Your task to perform on an android device: install app "Pluto TV - Live TV and Movies" Image 0: 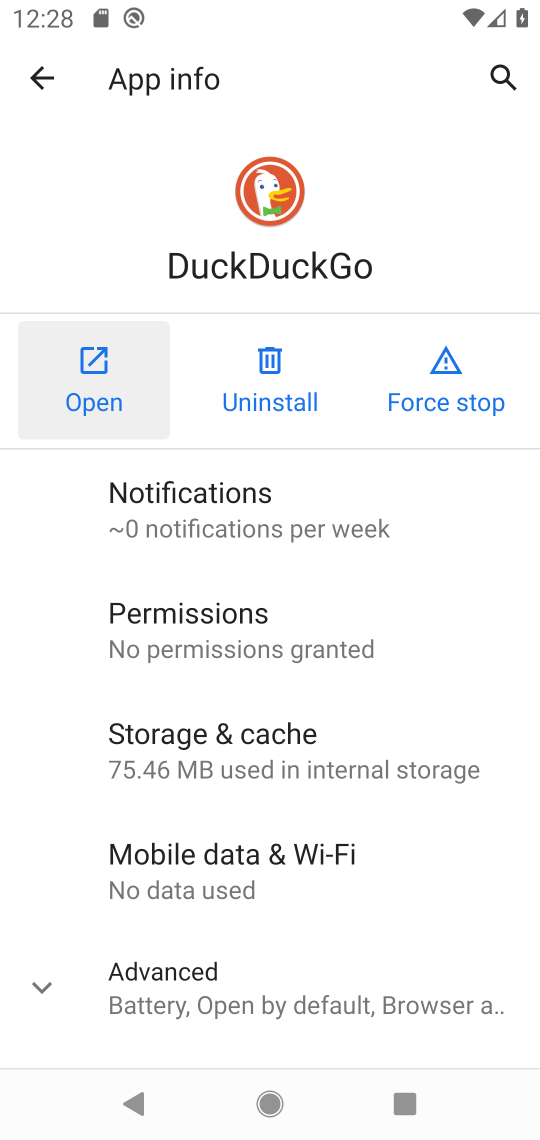
Step 0: press home button
Your task to perform on an android device: install app "Pluto TV - Live TV and Movies" Image 1: 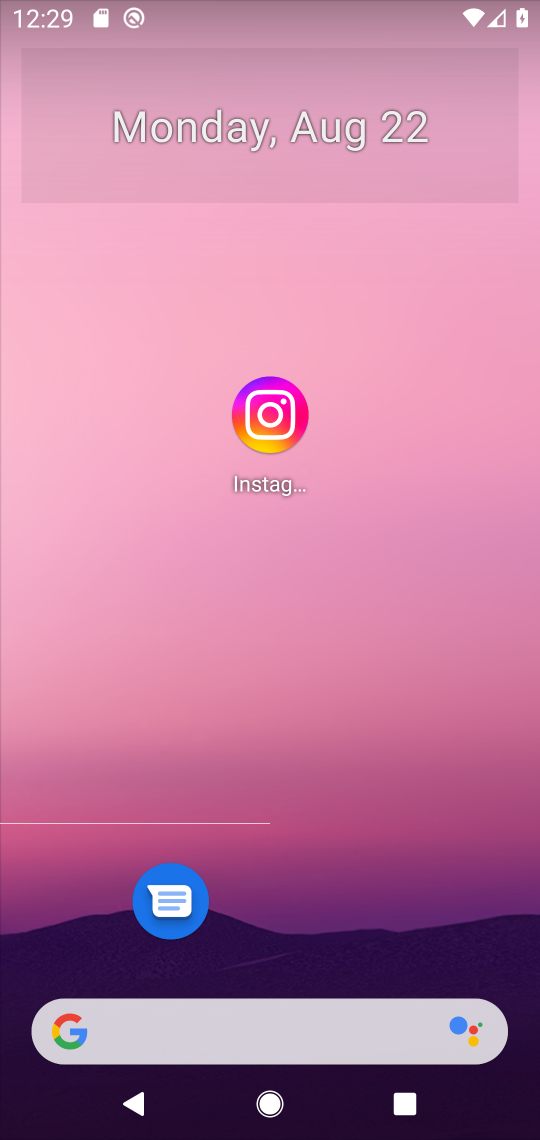
Step 1: drag from (378, 951) to (144, 4)
Your task to perform on an android device: install app "Pluto TV - Live TV and Movies" Image 2: 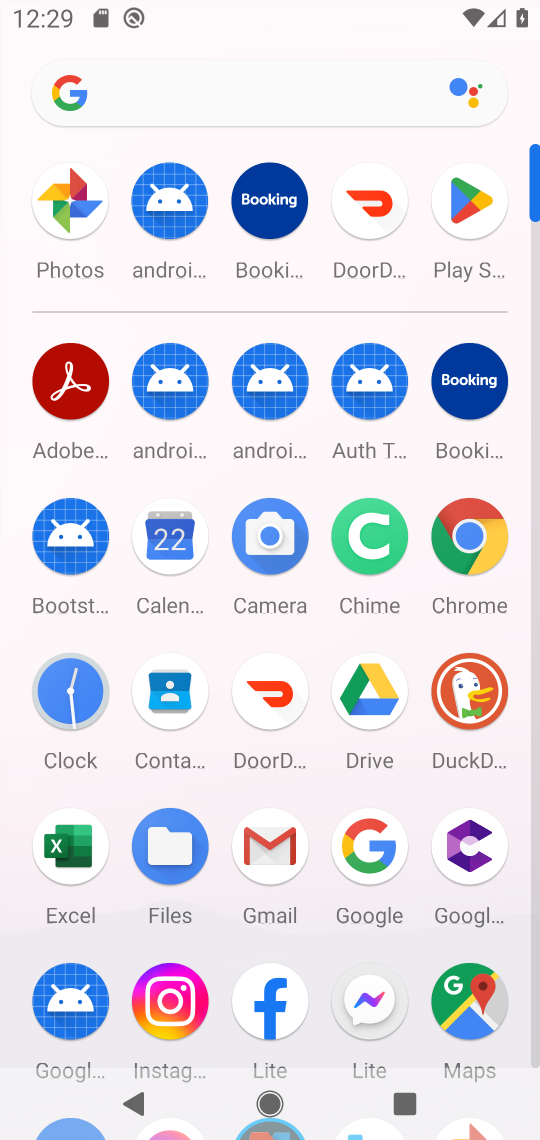
Step 2: click (465, 205)
Your task to perform on an android device: install app "Pluto TV - Live TV and Movies" Image 3: 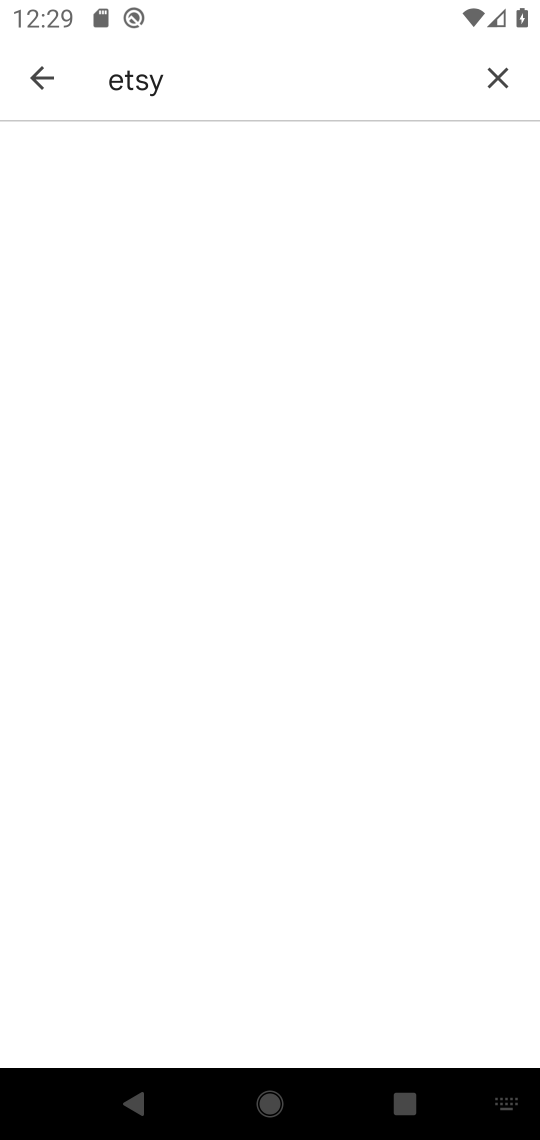
Step 3: click (498, 85)
Your task to perform on an android device: install app "Pluto TV - Live TV and Movies" Image 4: 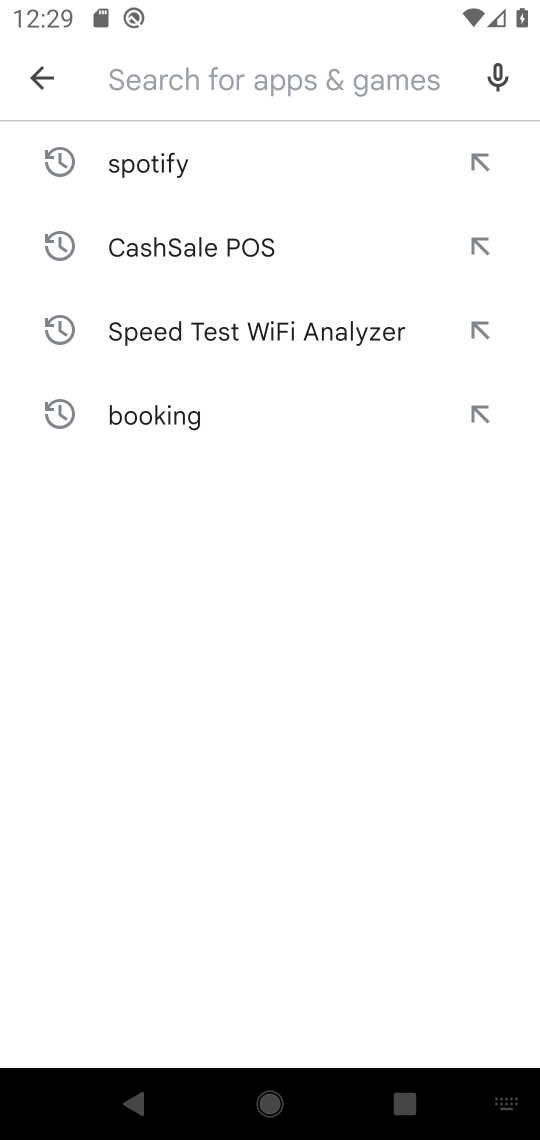
Step 4: type "pluto"
Your task to perform on an android device: install app "Pluto TV - Live TV and Movies" Image 5: 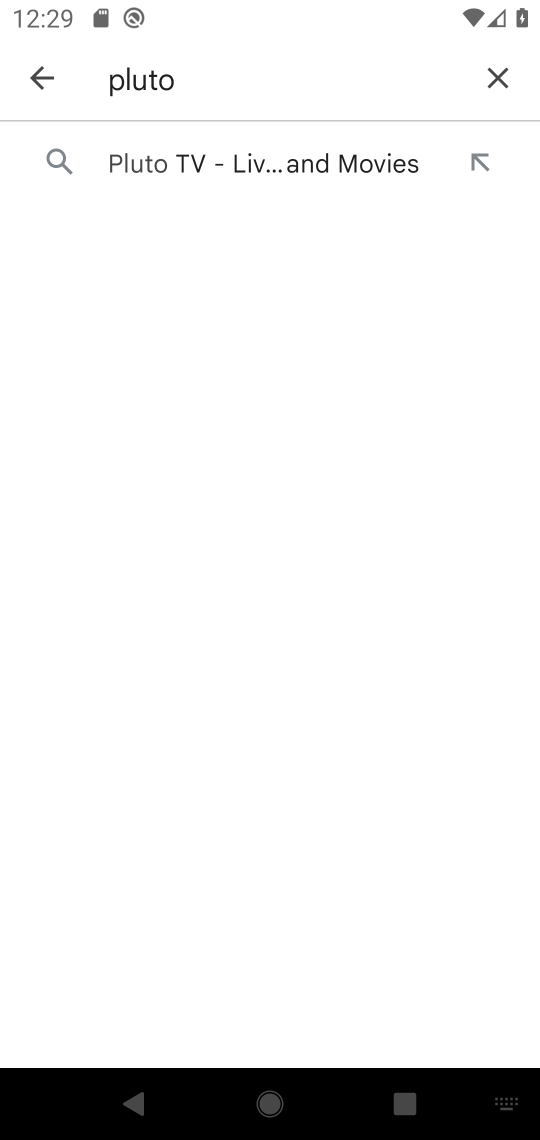
Step 5: click (279, 164)
Your task to perform on an android device: install app "Pluto TV - Live TV and Movies" Image 6: 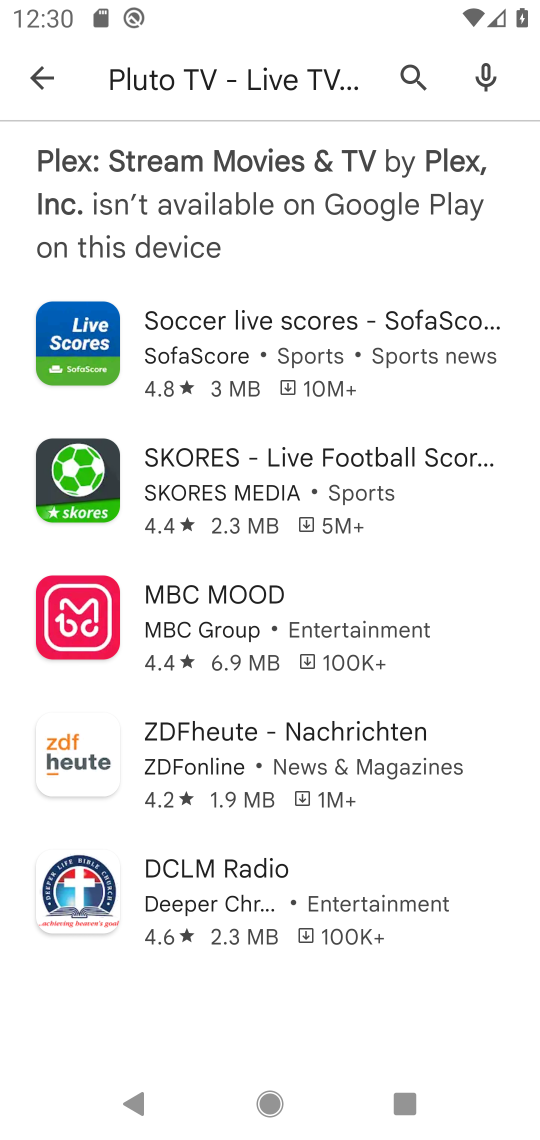
Step 6: task complete